Your task to perform on an android device: When is my next appointment? Image 0: 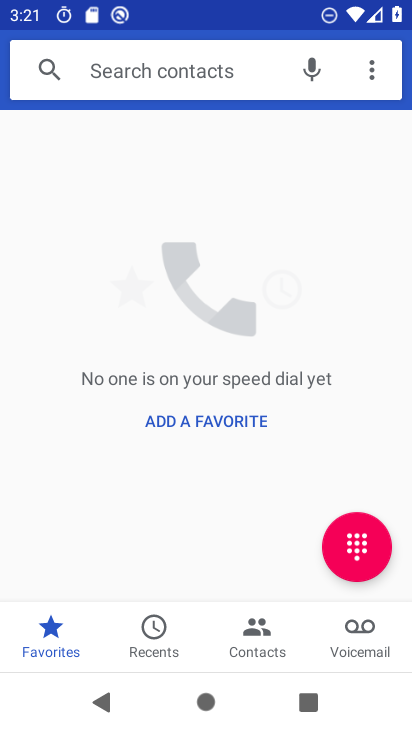
Step 0: press back button
Your task to perform on an android device: When is my next appointment? Image 1: 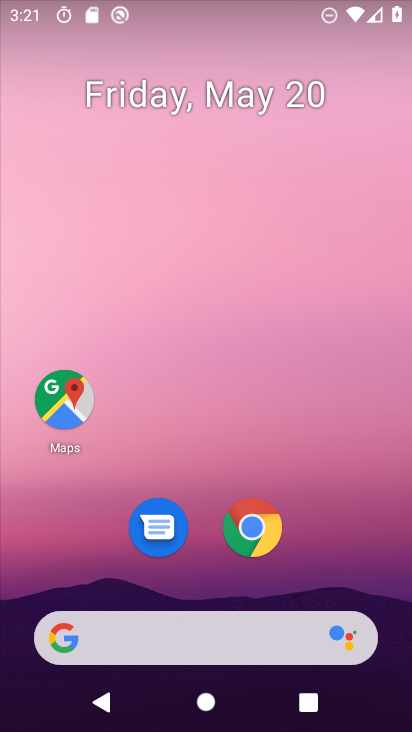
Step 1: drag from (150, 570) to (207, 110)
Your task to perform on an android device: When is my next appointment? Image 2: 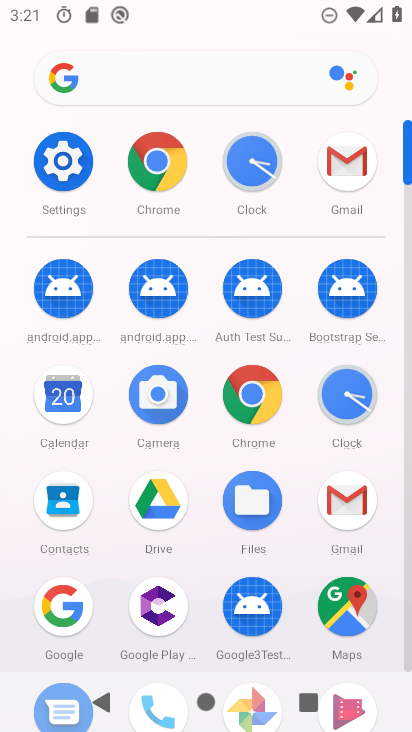
Step 2: click (71, 399)
Your task to perform on an android device: When is my next appointment? Image 3: 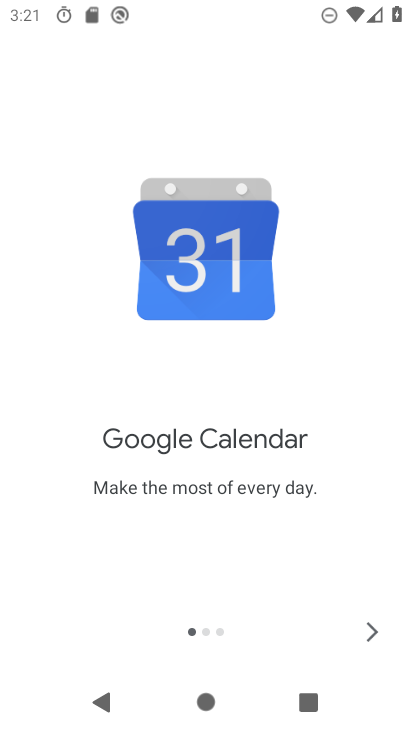
Step 3: click (381, 640)
Your task to perform on an android device: When is my next appointment? Image 4: 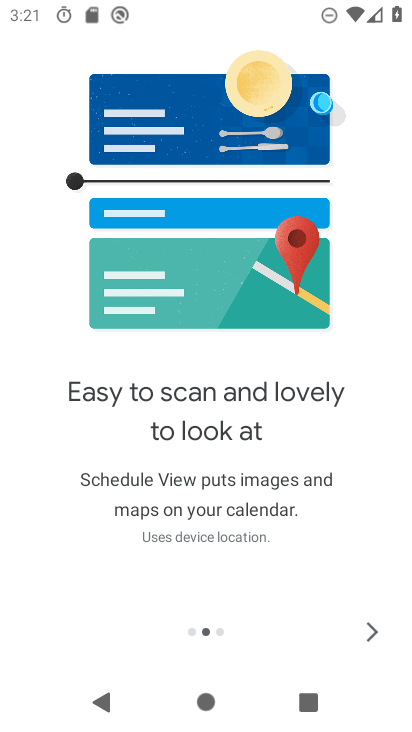
Step 4: click (371, 633)
Your task to perform on an android device: When is my next appointment? Image 5: 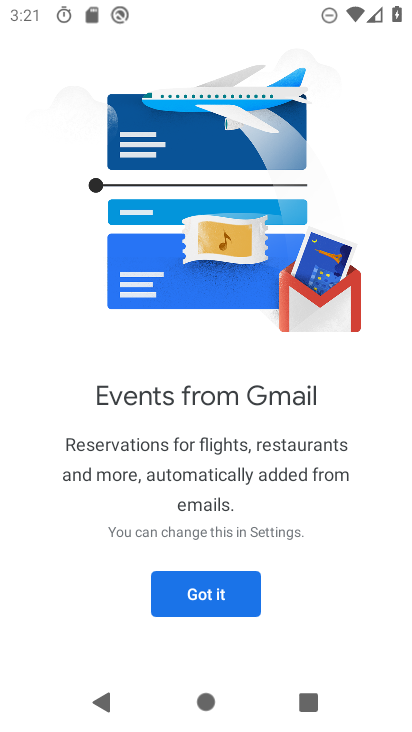
Step 5: click (210, 590)
Your task to perform on an android device: When is my next appointment? Image 6: 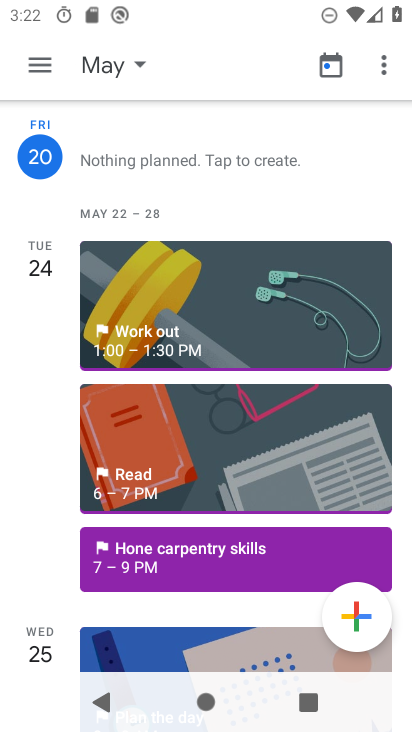
Step 6: task complete